Your task to perform on an android device: open a bookmark in the chrome app Image 0: 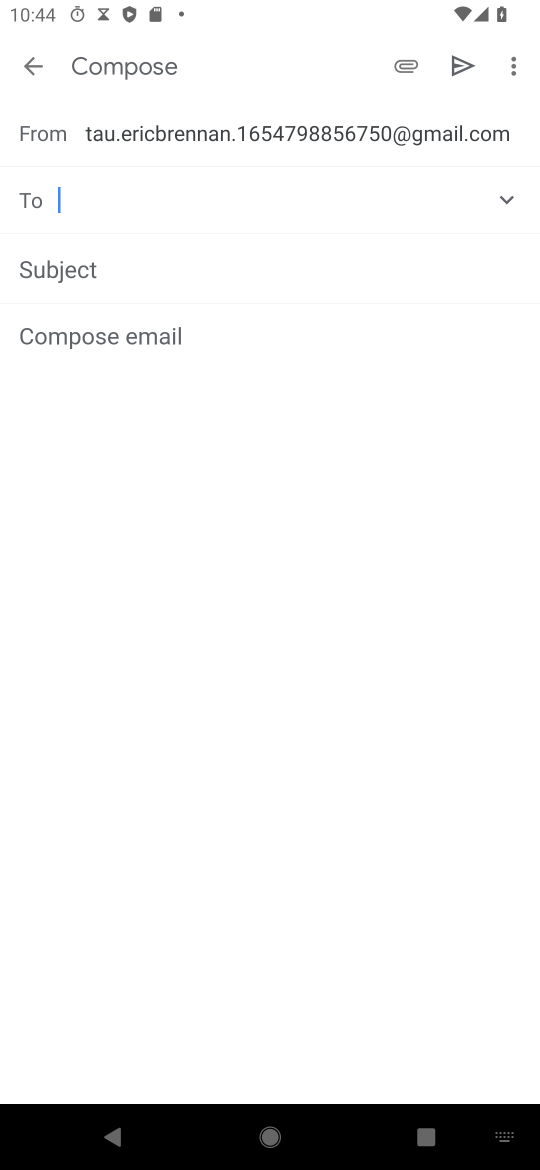
Step 0: press back button
Your task to perform on an android device: open a bookmark in the chrome app Image 1: 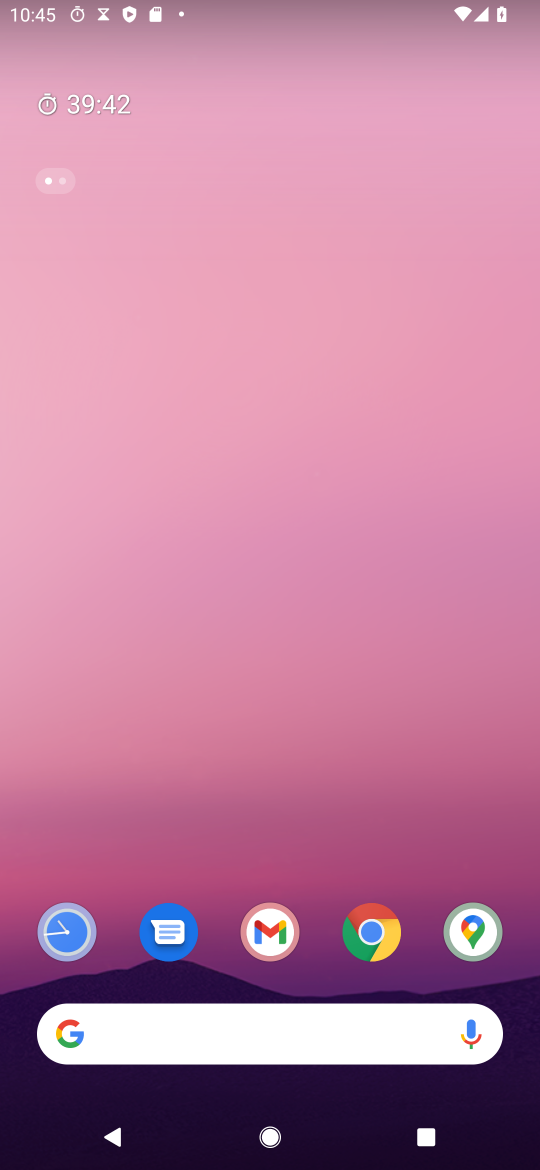
Step 1: click (377, 922)
Your task to perform on an android device: open a bookmark in the chrome app Image 2: 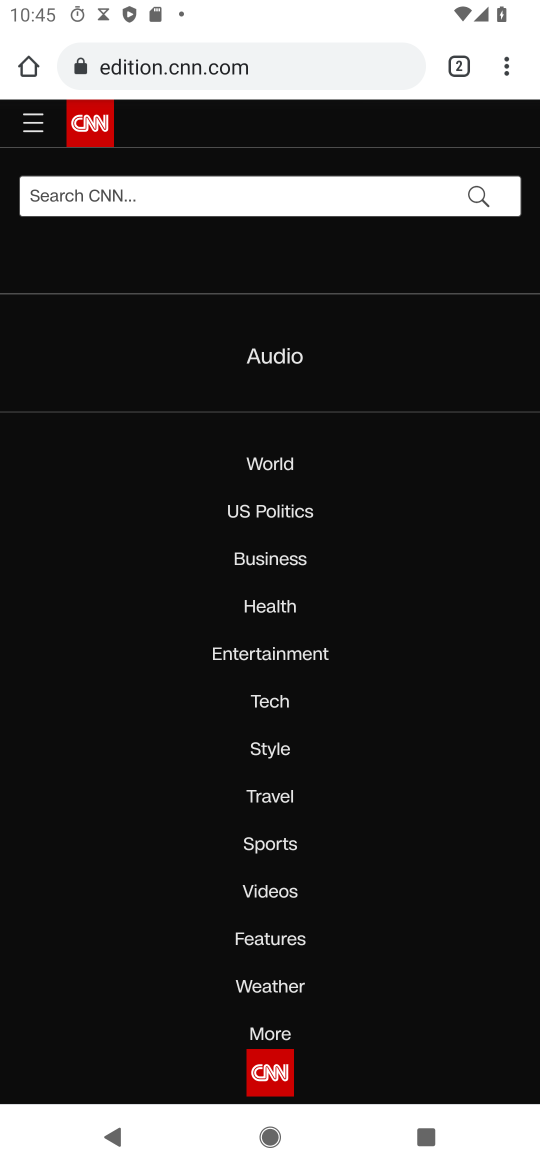
Step 2: click (516, 60)
Your task to perform on an android device: open a bookmark in the chrome app Image 3: 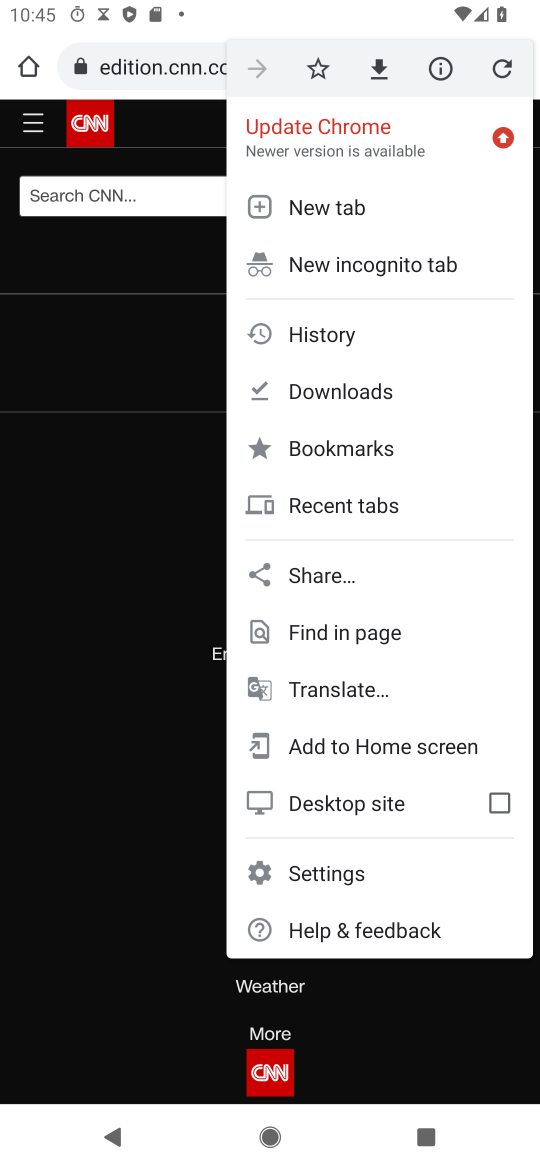
Step 3: click (409, 444)
Your task to perform on an android device: open a bookmark in the chrome app Image 4: 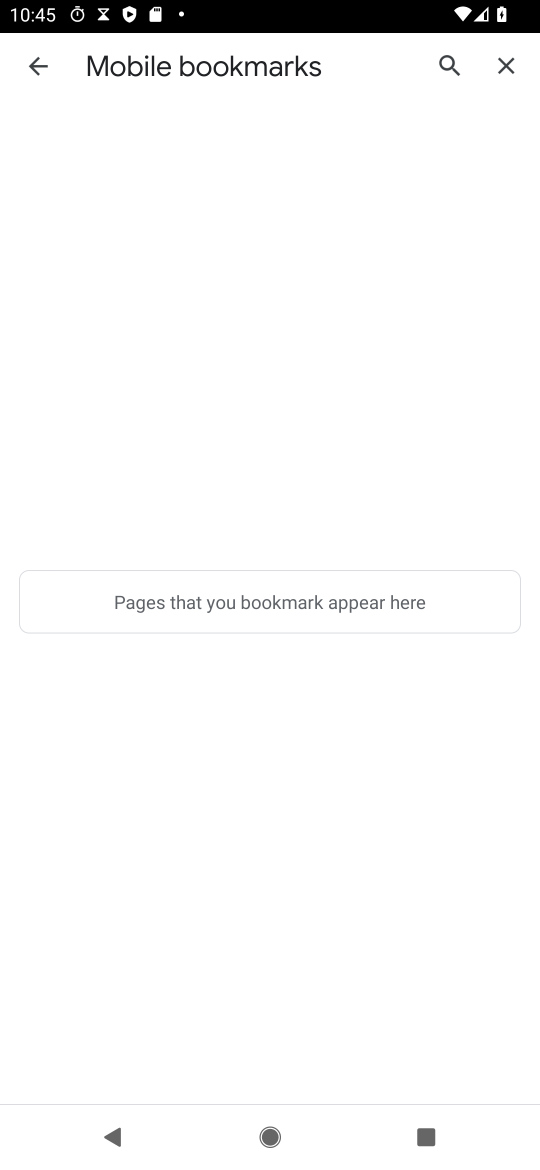
Step 4: task complete